Your task to perform on an android device: set an alarm Image 0: 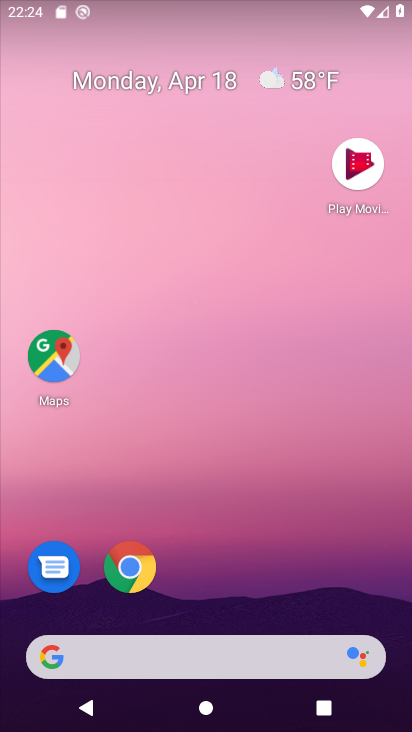
Step 0: drag from (213, 582) to (406, 685)
Your task to perform on an android device: set an alarm Image 1: 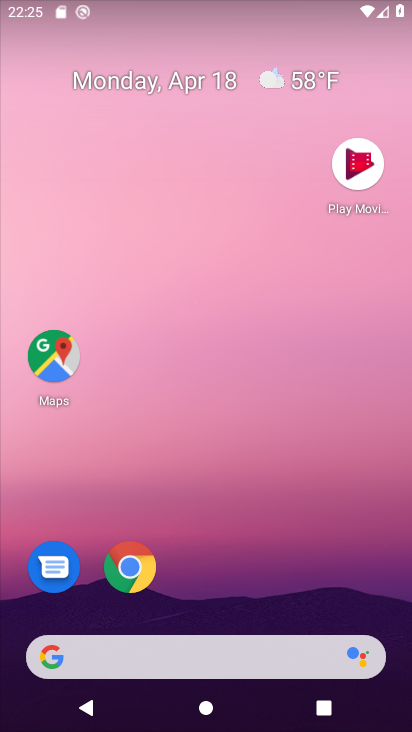
Step 1: drag from (186, 618) to (243, 214)
Your task to perform on an android device: set an alarm Image 2: 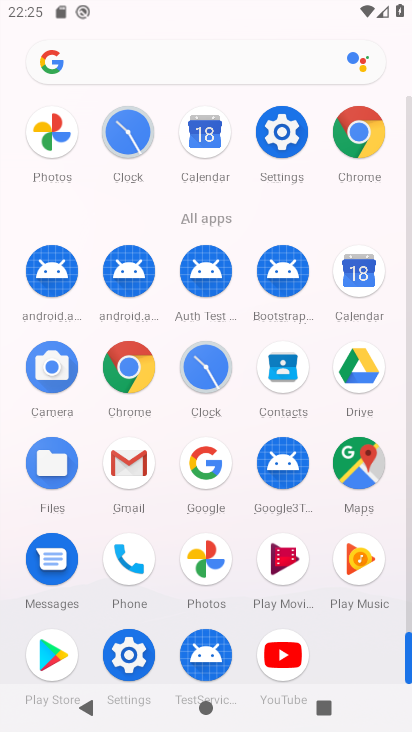
Step 2: click (202, 365)
Your task to perform on an android device: set an alarm Image 3: 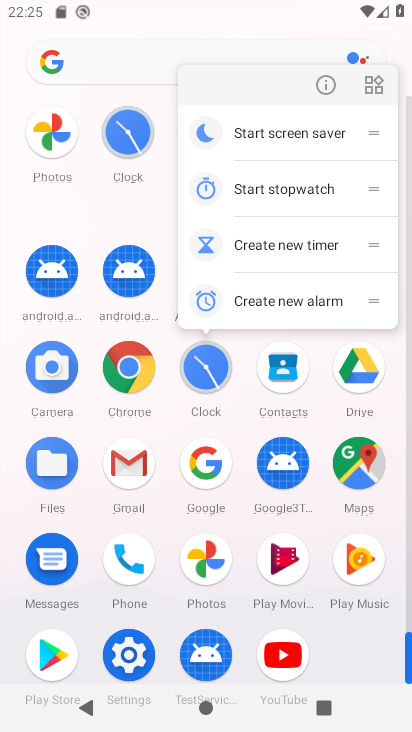
Step 3: click (326, 85)
Your task to perform on an android device: set an alarm Image 4: 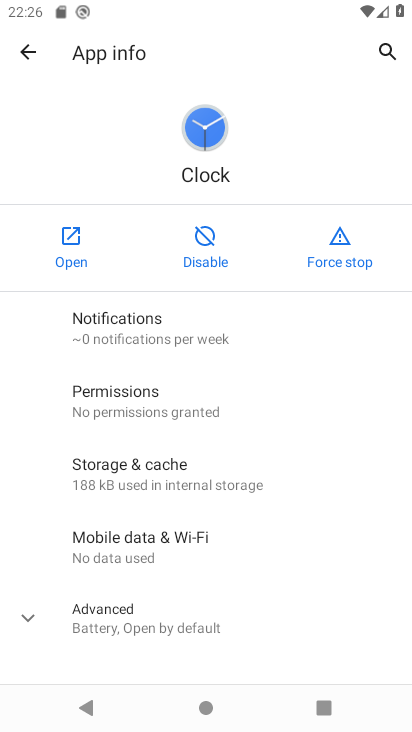
Step 4: click (66, 242)
Your task to perform on an android device: set an alarm Image 5: 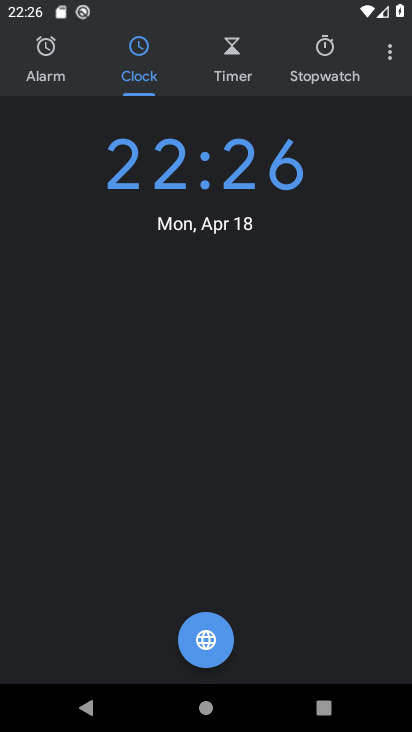
Step 5: click (63, 78)
Your task to perform on an android device: set an alarm Image 6: 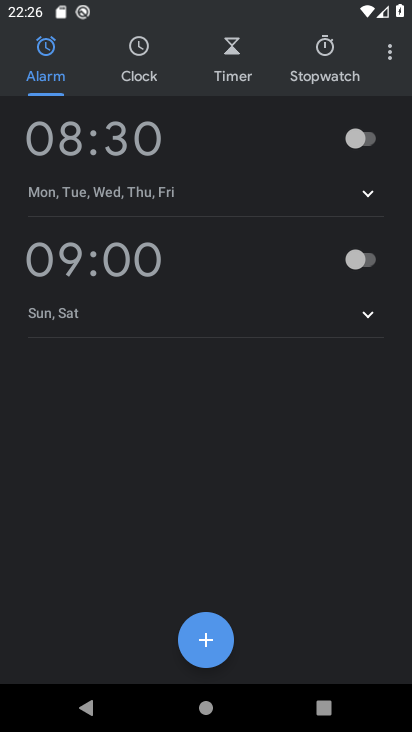
Step 6: click (358, 143)
Your task to perform on an android device: set an alarm Image 7: 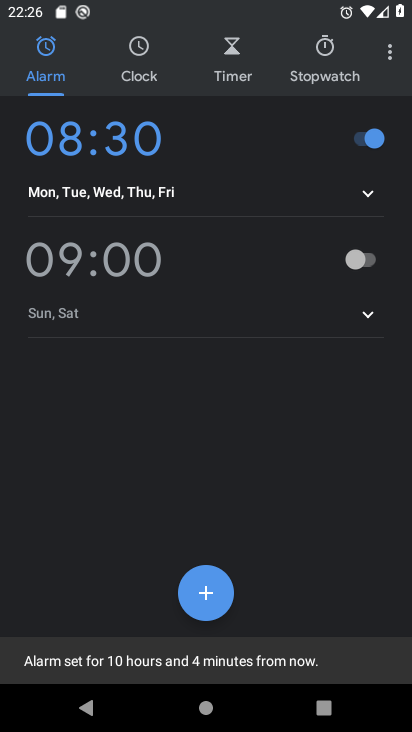
Step 7: task complete